Your task to perform on an android device: turn off translation in the chrome app Image 0: 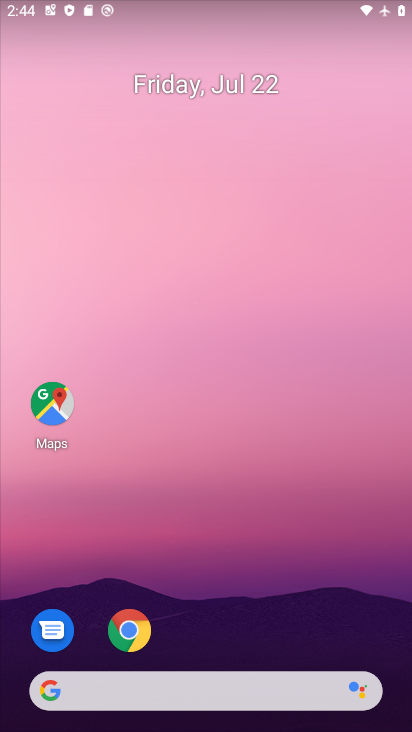
Step 0: drag from (214, 660) to (145, 168)
Your task to perform on an android device: turn off translation in the chrome app Image 1: 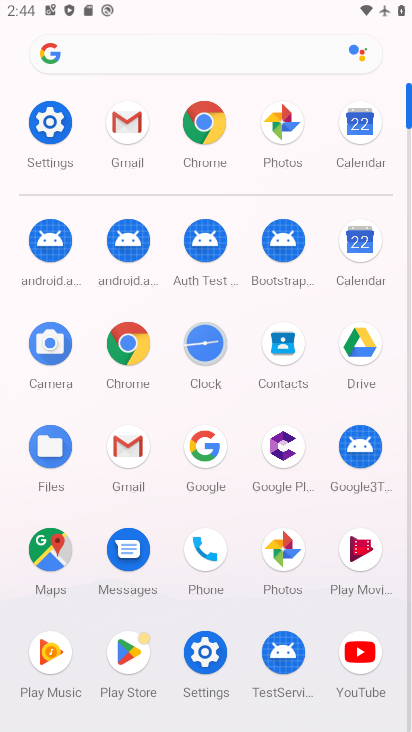
Step 1: click (214, 129)
Your task to perform on an android device: turn off translation in the chrome app Image 2: 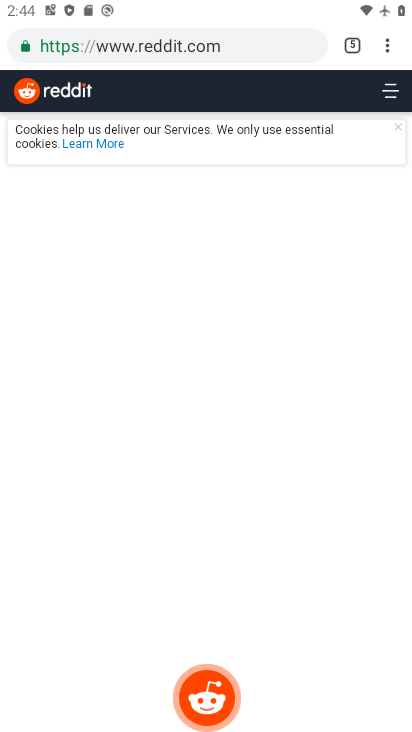
Step 2: drag from (387, 43) to (238, 538)
Your task to perform on an android device: turn off translation in the chrome app Image 3: 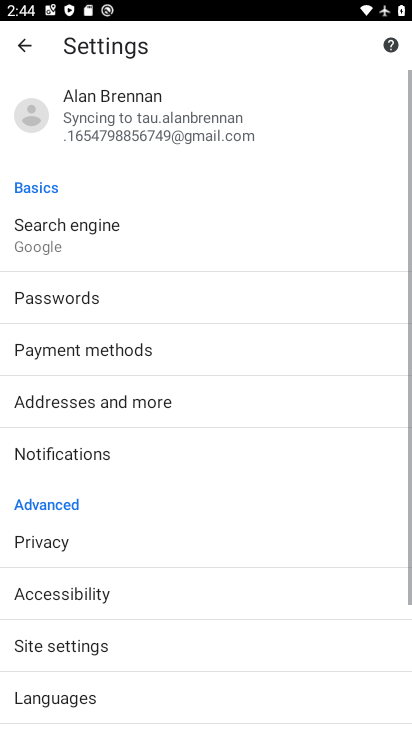
Step 3: drag from (175, 617) to (156, 132)
Your task to perform on an android device: turn off translation in the chrome app Image 4: 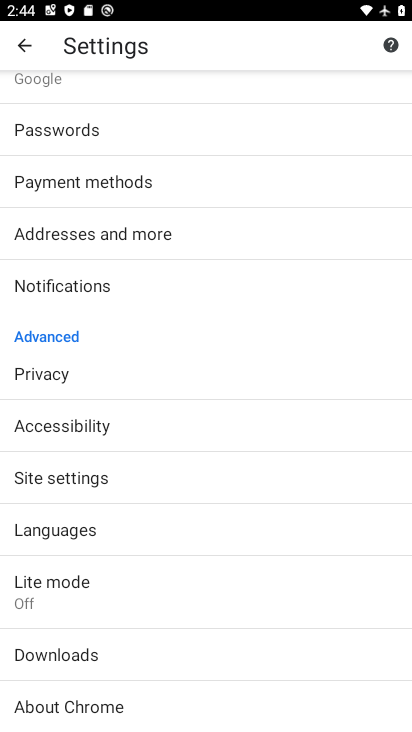
Step 4: click (30, 540)
Your task to perform on an android device: turn off translation in the chrome app Image 5: 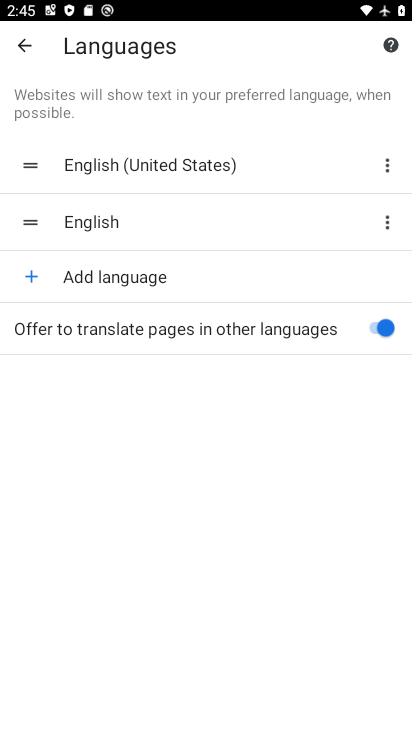
Step 5: click (387, 332)
Your task to perform on an android device: turn off translation in the chrome app Image 6: 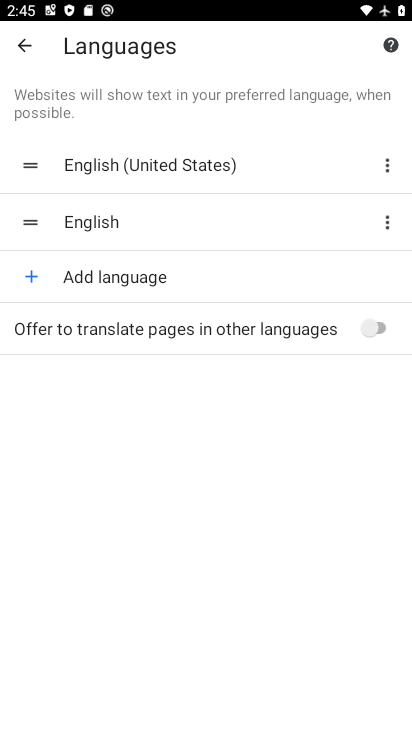
Step 6: task complete